Your task to perform on an android device: turn off sleep mode Image 0: 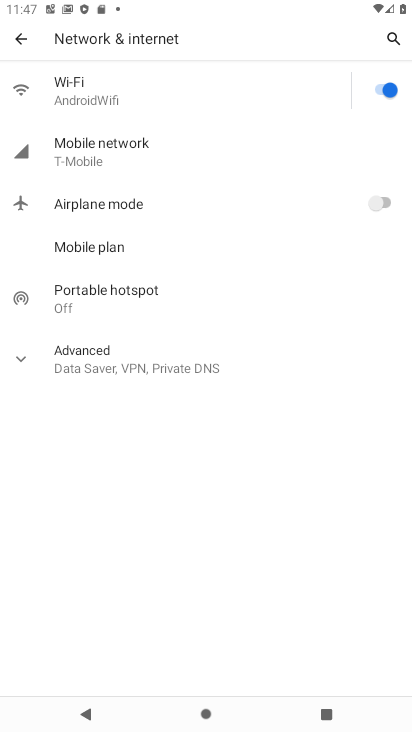
Step 0: press home button
Your task to perform on an android device: turn off sleep mode Image 1: 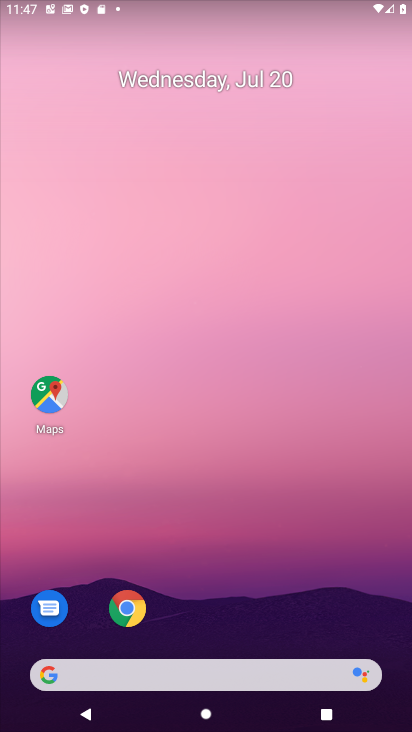
Step 1: press home button
Your task to perform on an android device: turn off sleep mode Image 2: 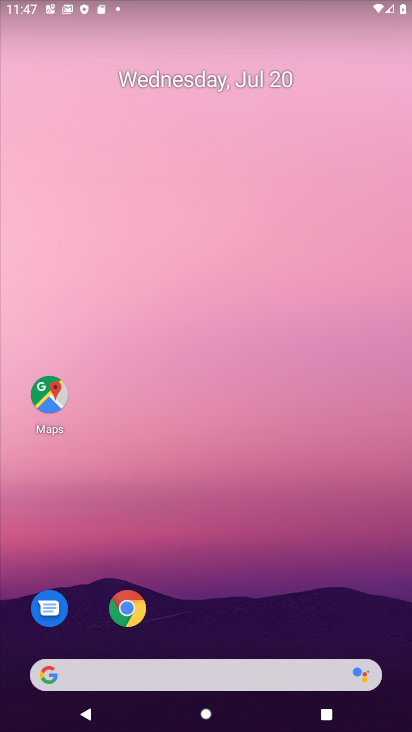
Step 2: drag from (271, 620) to (259, 201)
Your task to perform on an android device: turn off sleep mode Image 3: 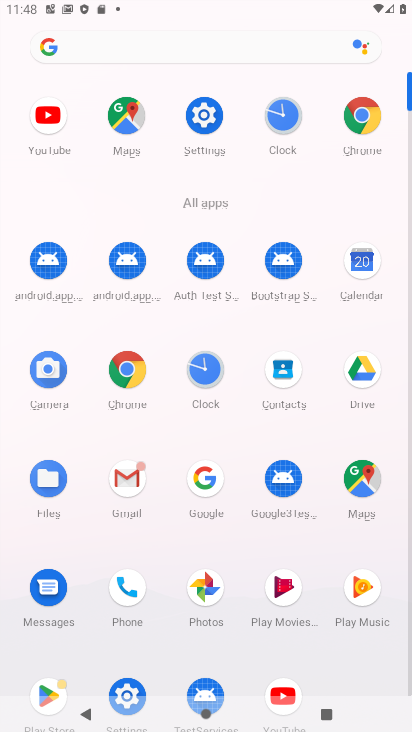
Step 3: click (212, 116)
Your task to perform on an android device: turn off sleep mode Image 4: 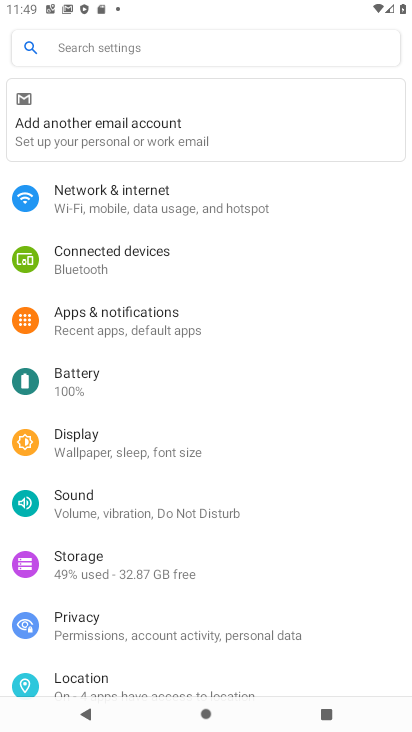
Step 4: click (97, 433)
Your task to perform on an android device: turn off sleep mode Image 5: 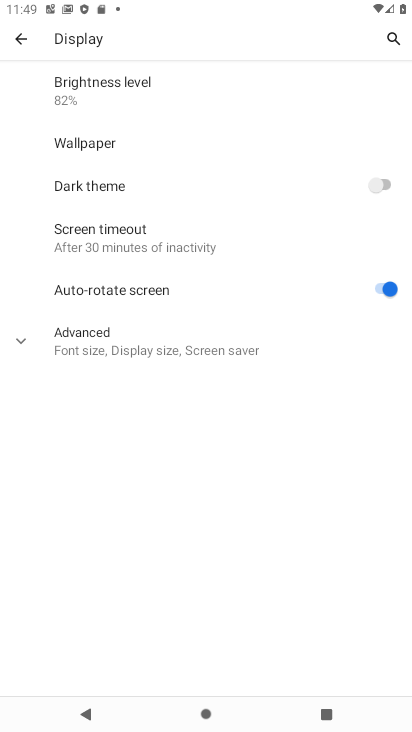
Step 5: click (18, 344)
Your task to perform on an android device: turn off sleep mode Image 6: 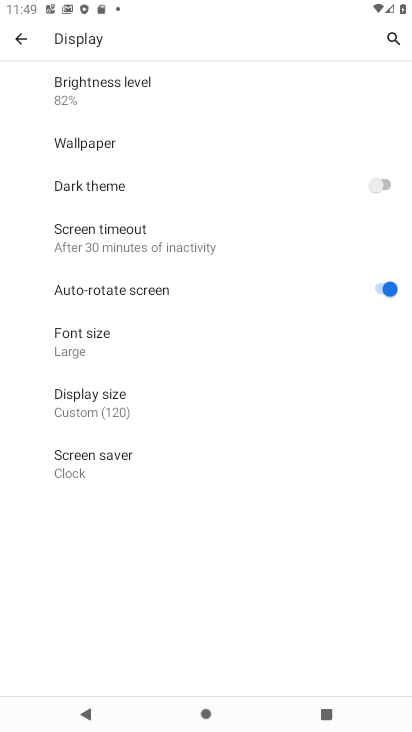
Step 6: task complete